Your task to perform on an android device: toggle notification dots Image 0: 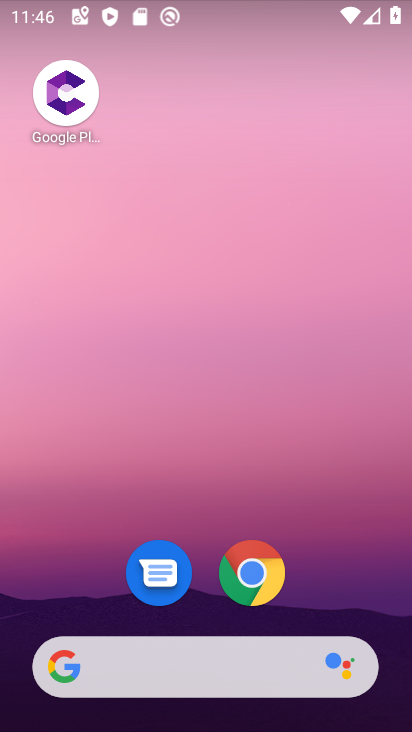
Step 0: drag from (190, 610) to (220, 39)
Your task to perform on an android device: toggle notification dots Image 1: 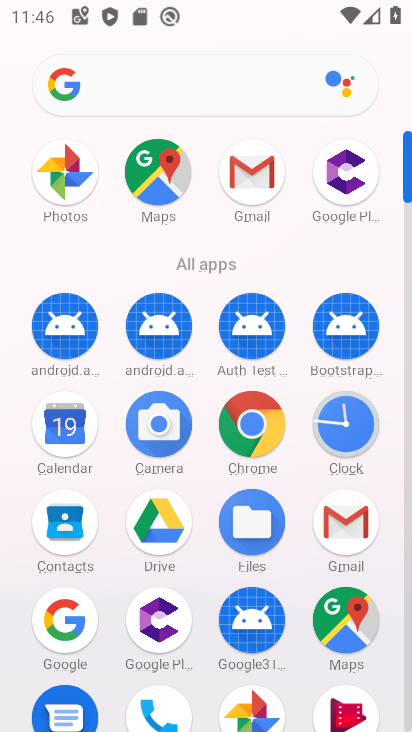
Step 1: drag from (193, 574) to (229, 186)
Your task to perform on an android device: toggle notification dots Image 2: 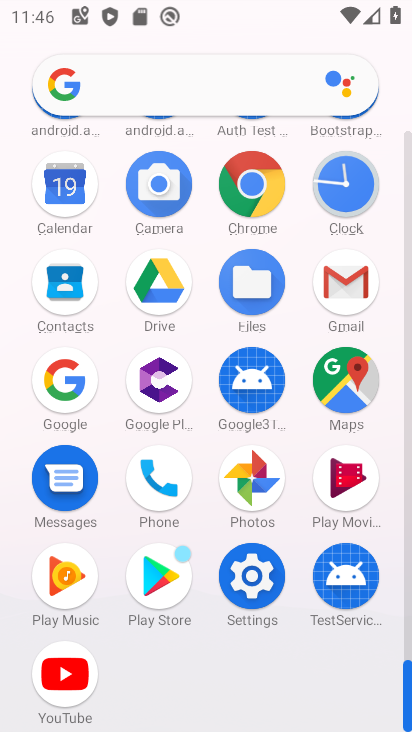
Step 2: click (244, 595)
Your task to perform on an android device: toggle notification dots Image 3: 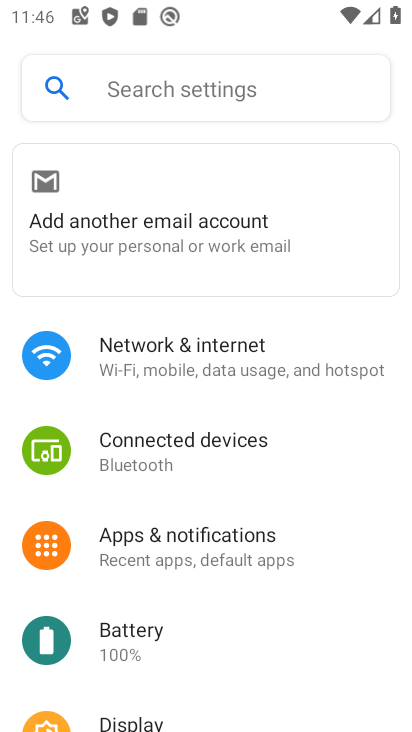
Step 3: click (237, 535)
Your task to perform on an android device: toggle notification dots Image 4: 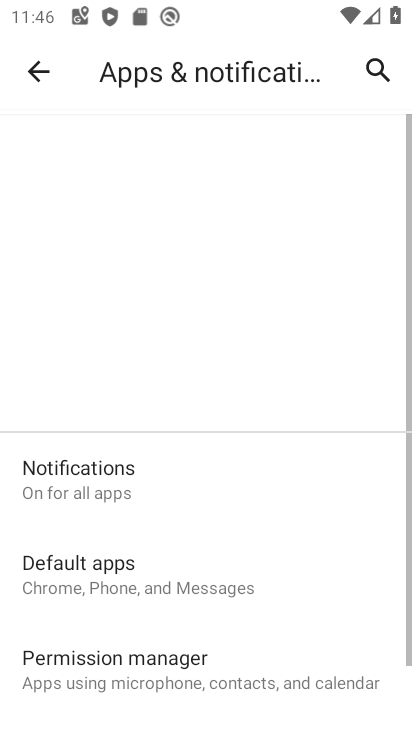
Step 4: click (155, 488)
Your task to perform on an android device: toggle notification dots Image 5: 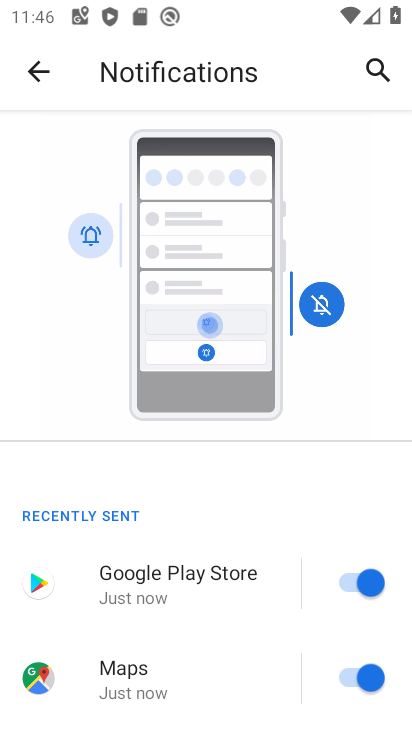
Step 5: drag from (163, 575) to (243, 41)
Your task to perform on an android device: toggle notification dots Image 6: 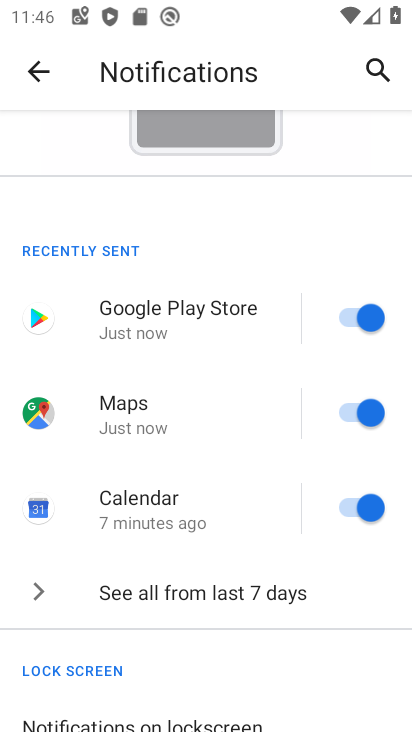
Step 6: drag from (220, 576) to (263, 103)
Your task to perform on an android device: toggle notification dots Image 7: 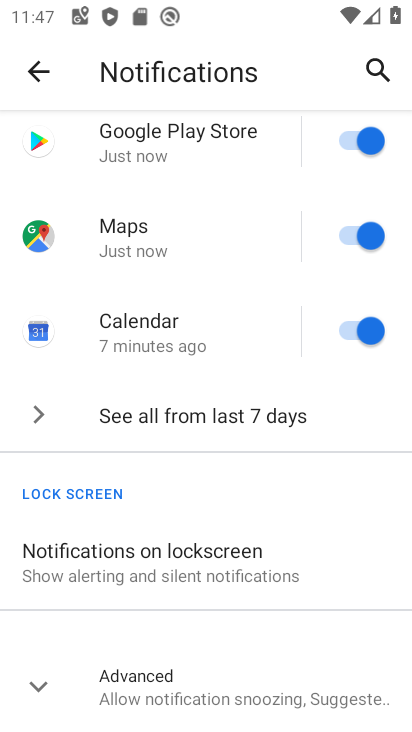
Step 7: click (173, 681)
Your task to perform on an android device: toggle notification dots Image 8: 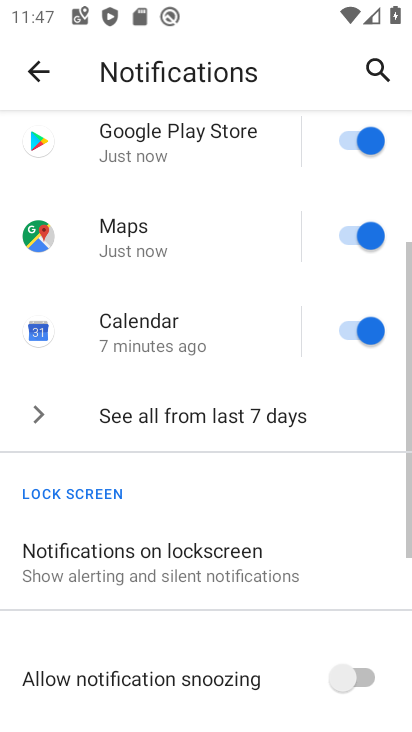
Step 8: drag from (234, 652) to (260, 214)
Your task to perform on an android device: toggle notification dots Image 9: 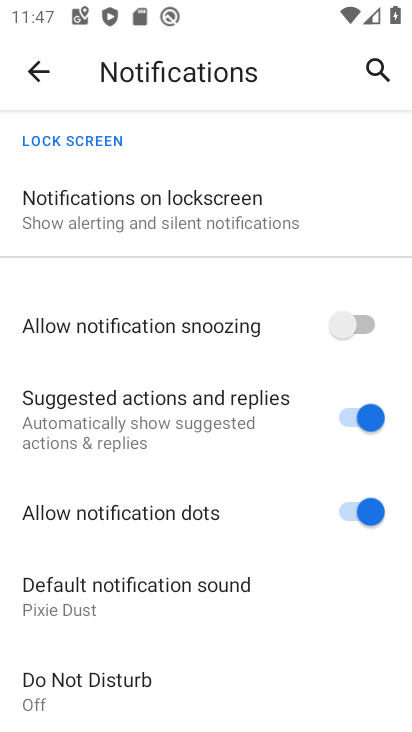
Step 9: click (338, 508)
Your task to perform on an android device: toggle notification dots Image 10: 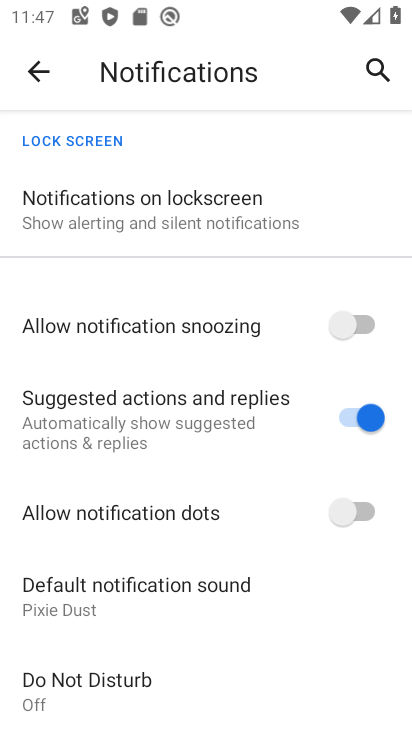
Step 10: task complete